Your task to perform on an android device: check battery use Image 0: 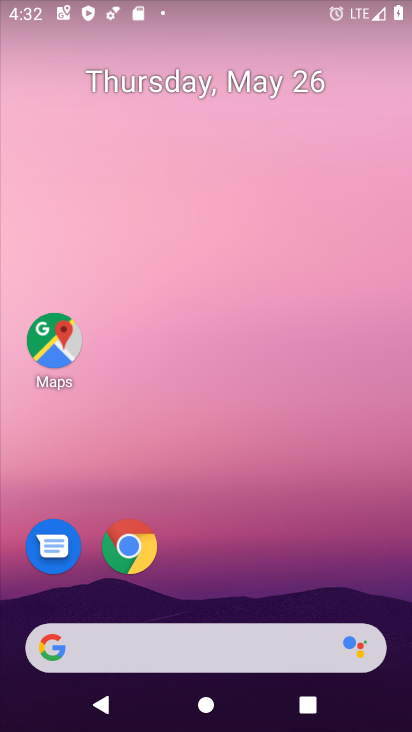
Step 0: drag from (229, 546) to (302, 40)
Your task to perform on an android device: check battery use Image 1: 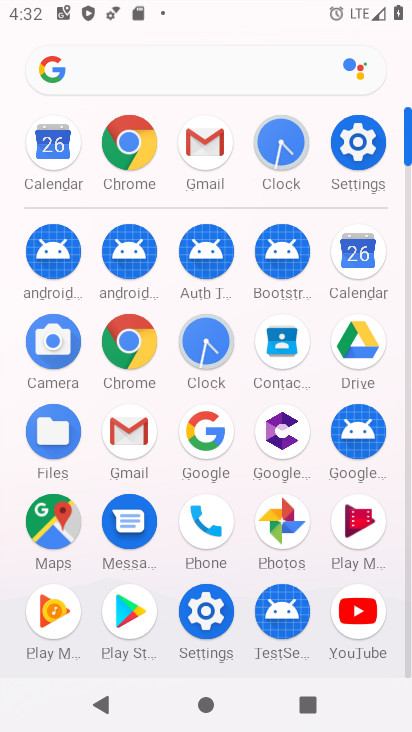
Step 1: click (356, 136)
Your task to perform on an android device: check battery use Image 2: 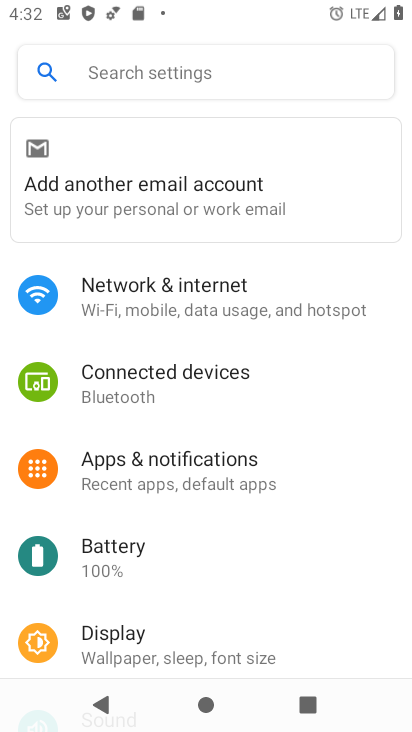
Step 2: click (162, 559)
Your task to perform on an android device: check battery use Image 3: 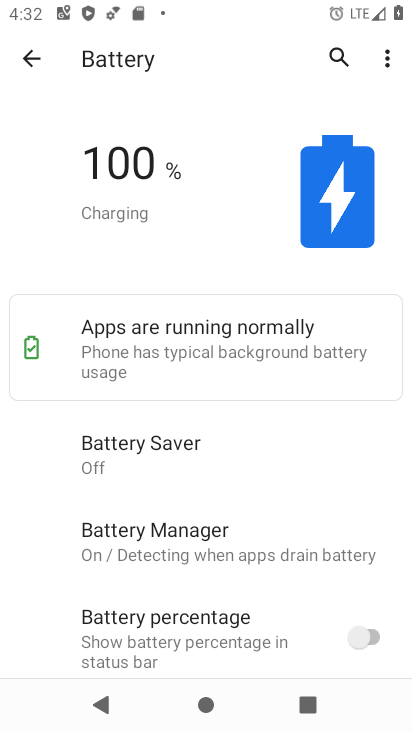
Step 3: task complete